Your task to perform on an android device: Open privacy settings Image 0: 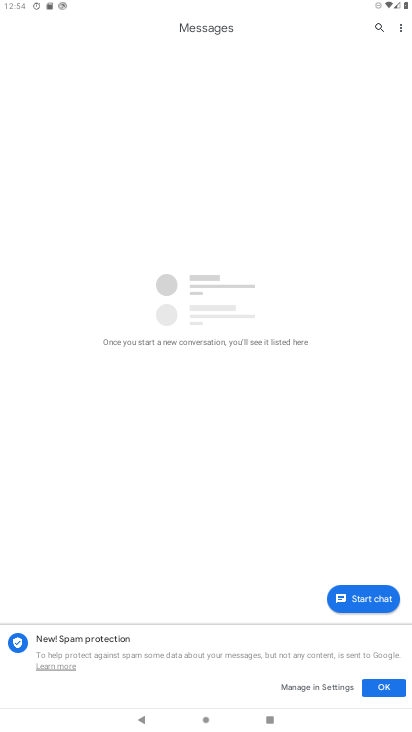
Step 0: press home button
Your task to perform on an android device: Open privacy settings Image 1: 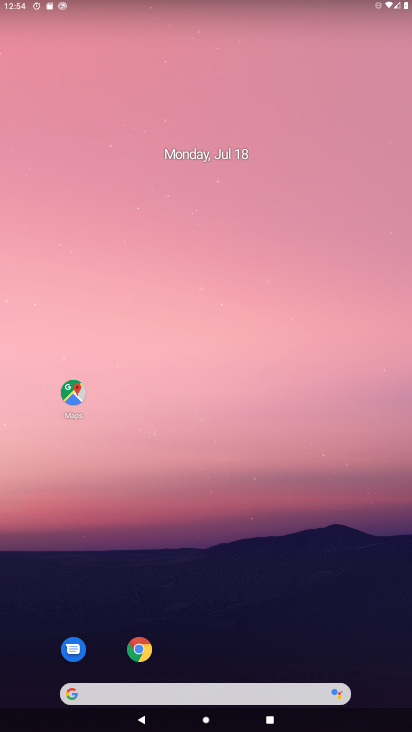
Step 1: drag from (12, 660) to (219, 21)
Your task to perform on an android device: Open privacy settings Image 2: 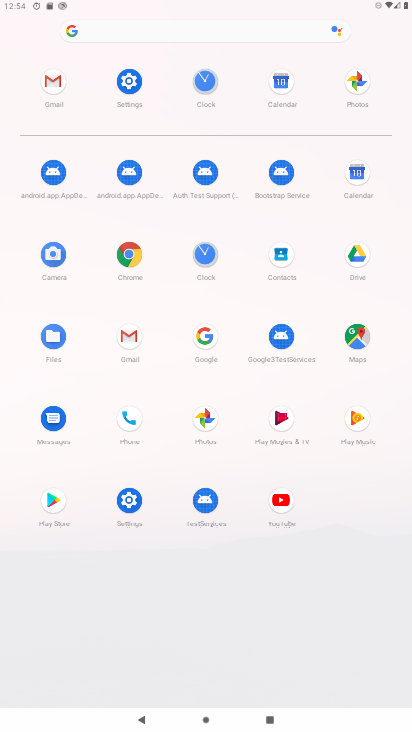
Step 2: click (114, 508)
Your task to perform on an android device: Open privacy settings Image 3: 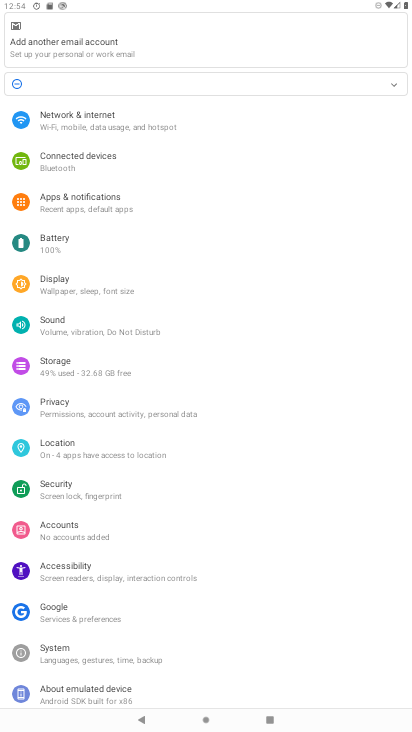
Step 3: click (38, 406)
Your task to perform on an android device: Open privacy settings Image 4: 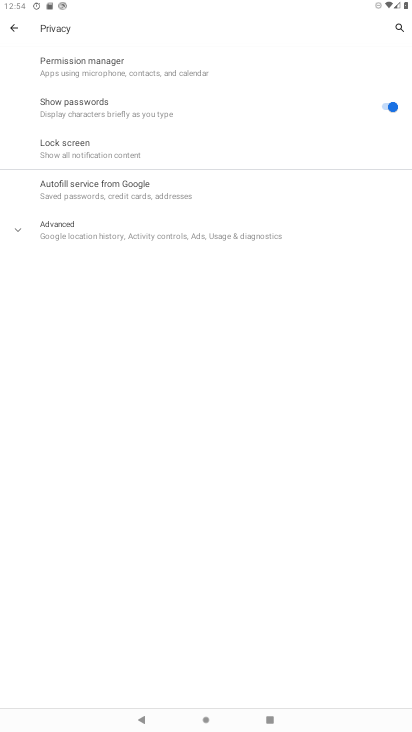
Step 4: task complete